Your task to perform on an android device: check battery use Image 0: 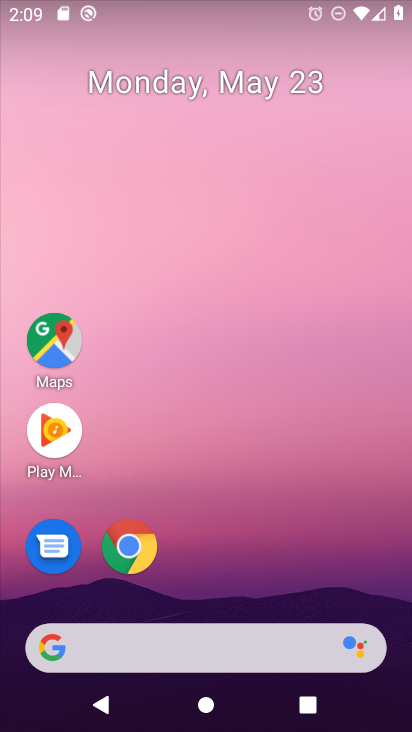
Step 0: drag from (235, 513) to (325, 79)
Your task to perform on an android device: check battery use Image 1: 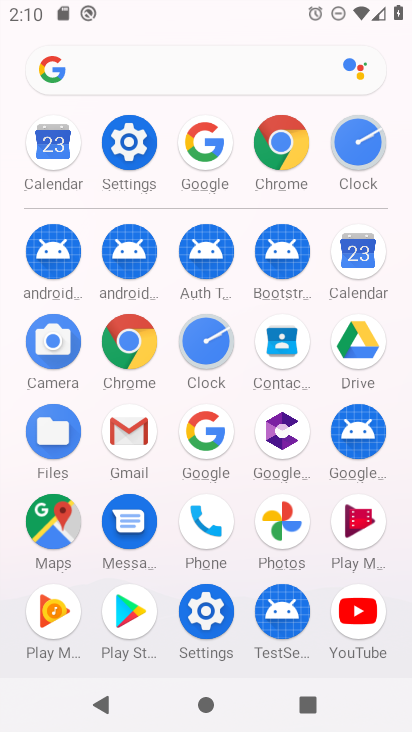
Step 1: click (140, 144)
Your task to perform on an android device: check battery use Image 2: 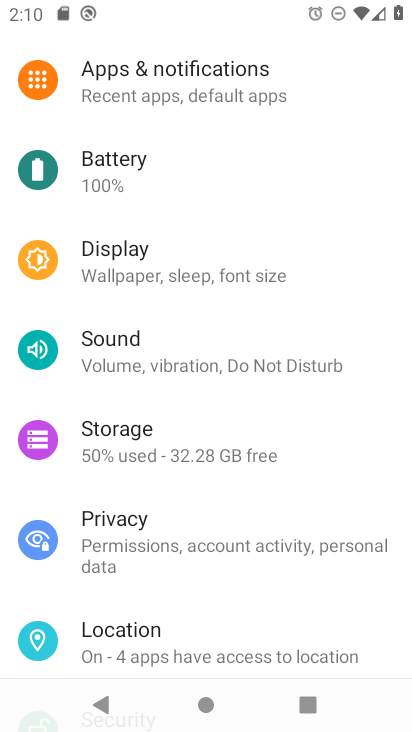
Step 2: click (185, 174)
Your task to perform on an android device: check battery use Image 3: 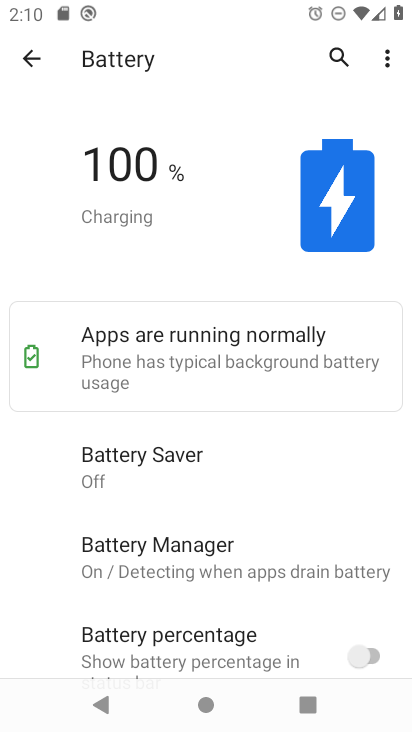
Step 3: task complete